Your task to perform on an android device: Show me popular videos on Youtube Image 0: 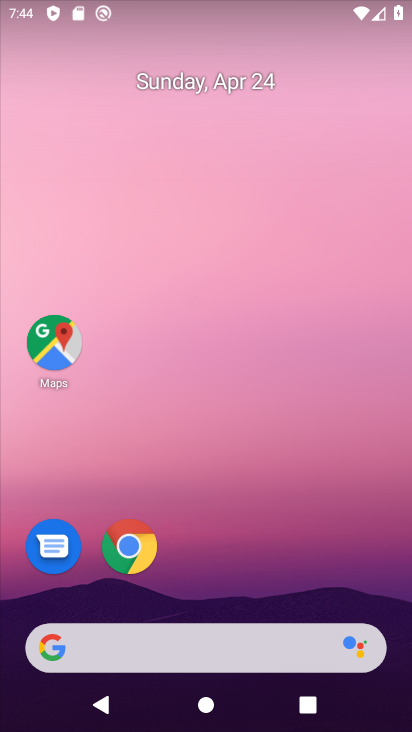
Step 0: drag from (174, 583) to (194, 235)
Your task to perform on an android device: Show me popular videos on Youtube Image 1: 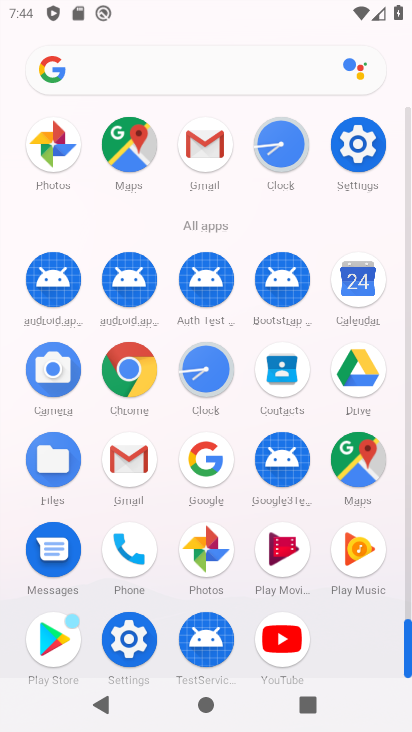
Step 1: click (274, 648)
Your task to perform on an android device: Show me popular videos on Youtube Image 2: 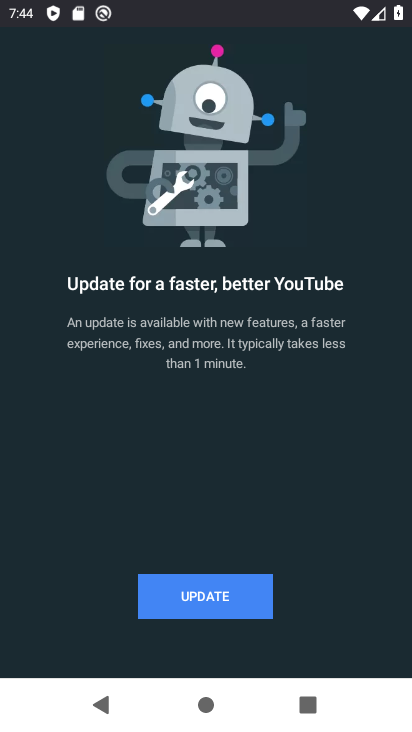
Step 2: click (375, 268)
Your task to perform on an android device: Show me popular videos on Youtube Image 3: 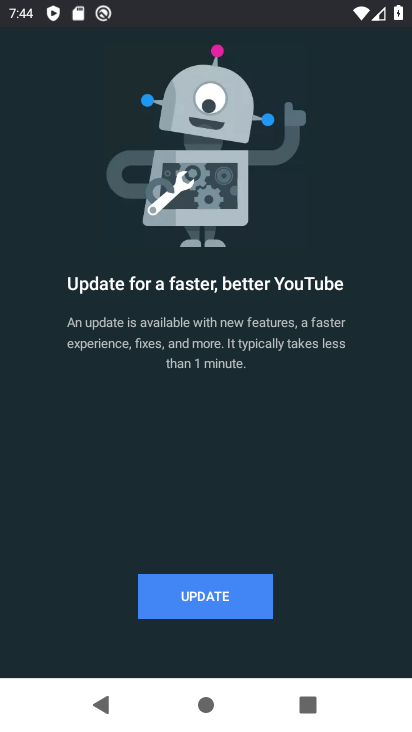
Step 3: task complete